Your task to perform on an android device: Open Youtube and go to "Your channel" Image 0: 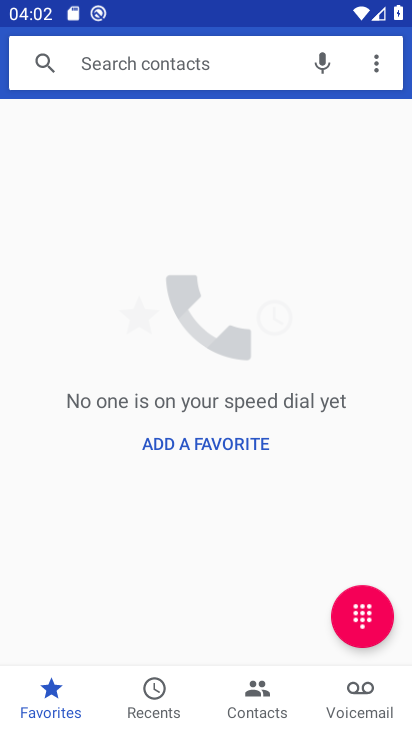
Step 0: press home button
Your task to perform on an android device: Open Youtube and go to "Your channel" Image 1: 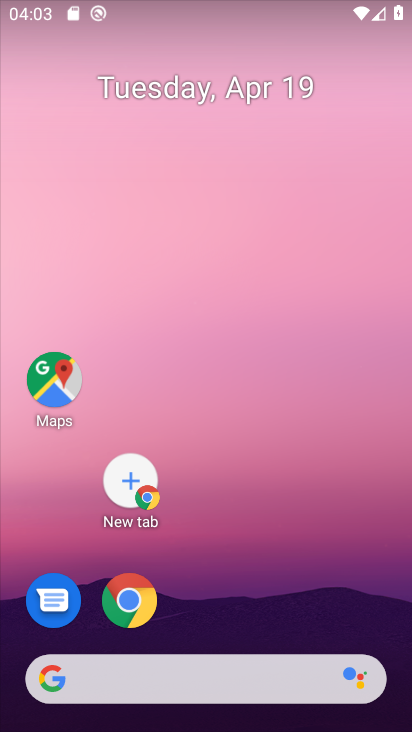
Step 1: drag from (257, 571) to (167, 71)
Your task to perform on an android device: Open Youtube and go to "Your channel" Image 2: 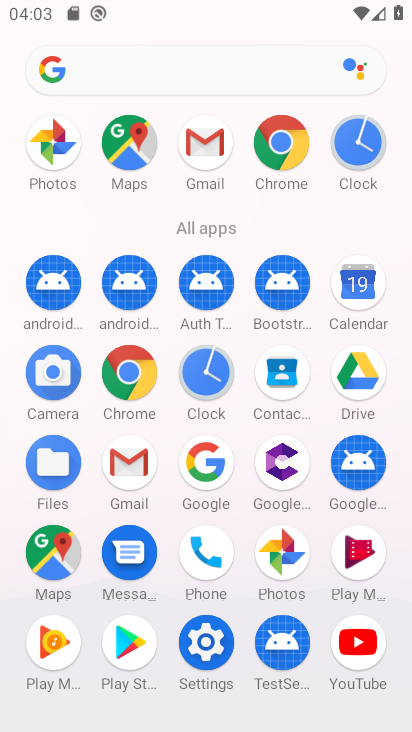
Step 2: click (354, 642)
Your task to perform on an android device: Open Youtube and go to "Your channel" Image 3: 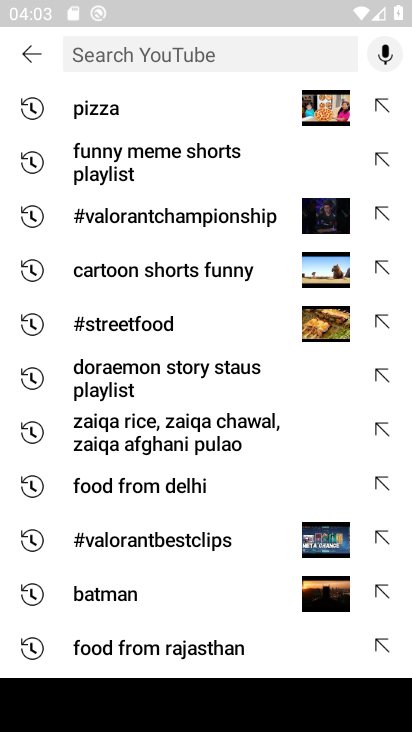
Step 3: click (156, 47)
Your task to perform on an android device: Open Youtube and go to "Your channel" Image 4: 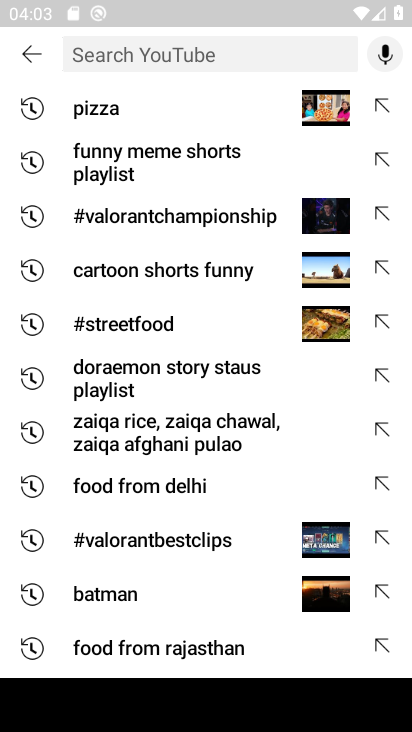
Step 4: type "your channel"
Your task to perform on an android device: Open Youtube and go to "Your channel" Image 5: 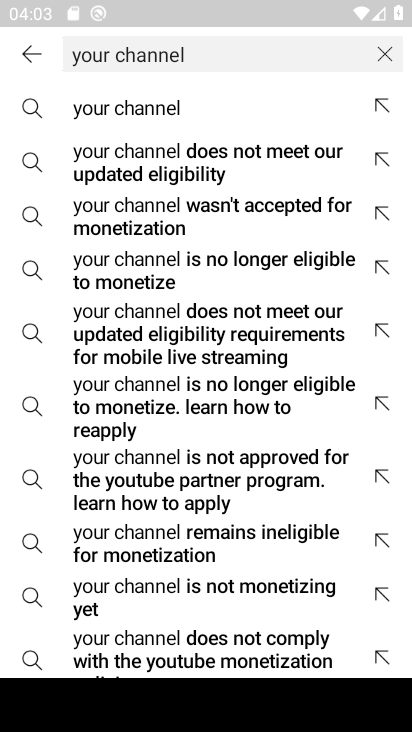
Step 5: click (104, 117)
Your task to perform on an android device: Open Youtube and go to "Your channel" Image 6: 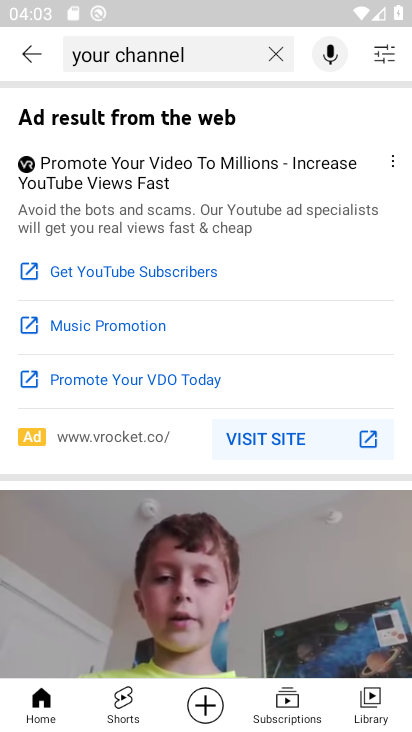
Step 6: task complete